Your task to perform on an android device: turn off wifi Image 0: 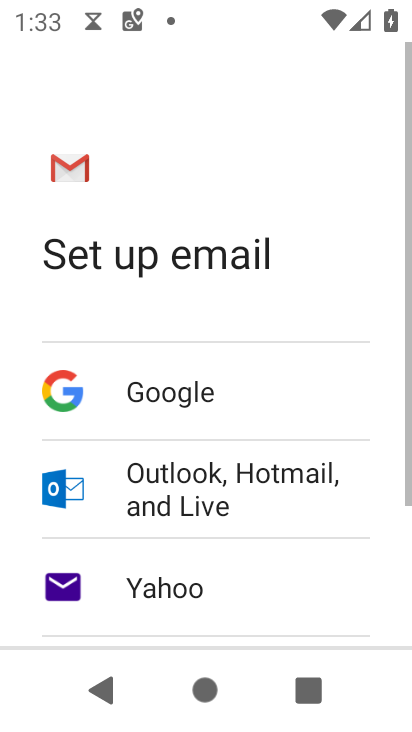
Step 0: press home button
Your task to perform on an android device: turn off wifi Image 1: 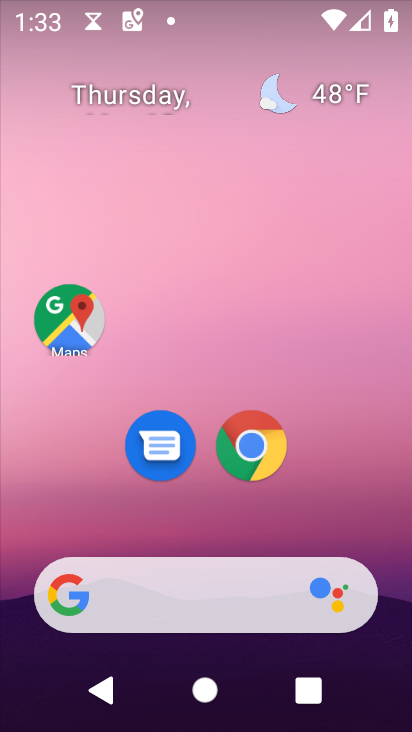
Step 1: drag from (275, 498) to (271, 127)
Your task to perform on an android device: turn off wifi Image 2: 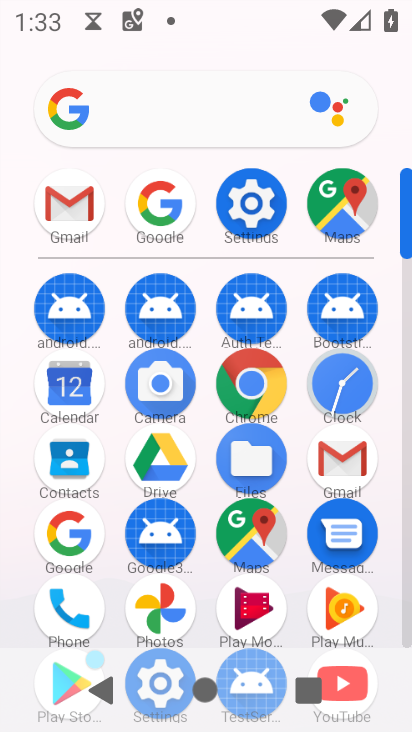
Step 2: click (260, 219)
Your task to perform on an android device: turn off wifi Image 3: 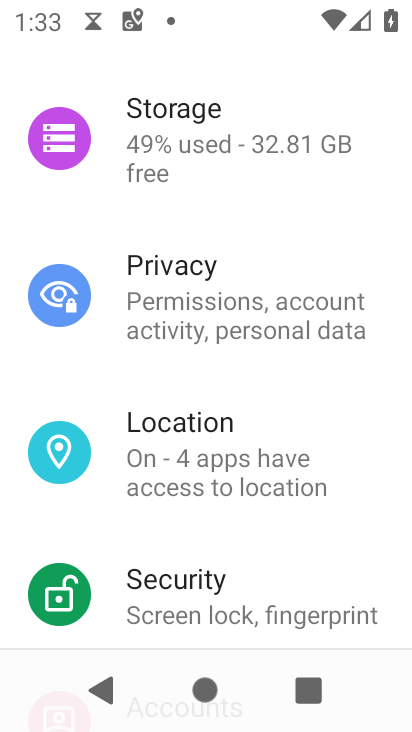
Step 3: drag from (314, 217) to (288, 516)
Your task to perform on an android device: turn off wifi Image 4: 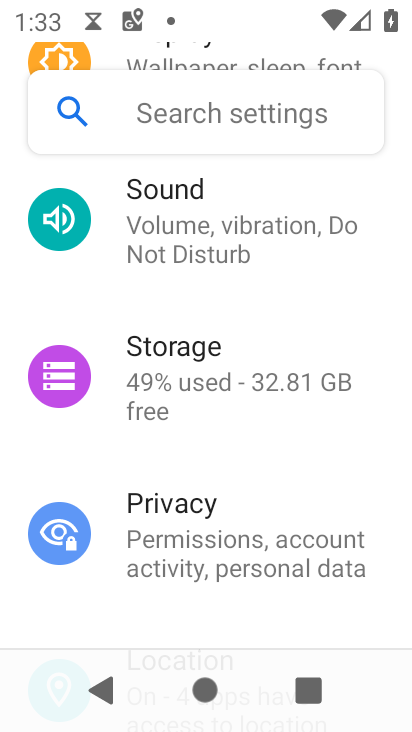
Step 4: drag from (252, 211) to (252, 582)
Your task to perform on an android device: turn off wifi Image 5: 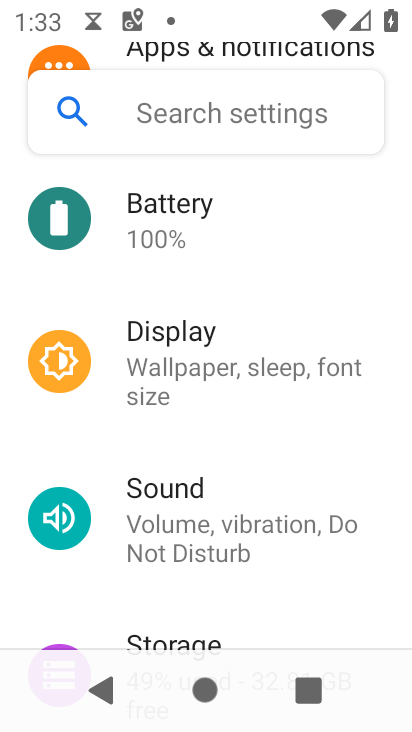
Step 5: drag from (251, 239) to (247, 606)
Your task to perform on an android device: turn off wifi Image 6: 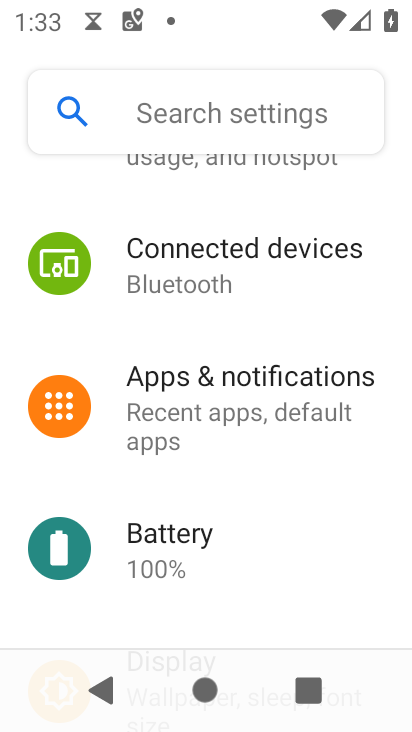
Step 6: drag from (254, 303) to (257, 661)
Your task to perform on an android device: turn off wifi Image 7: 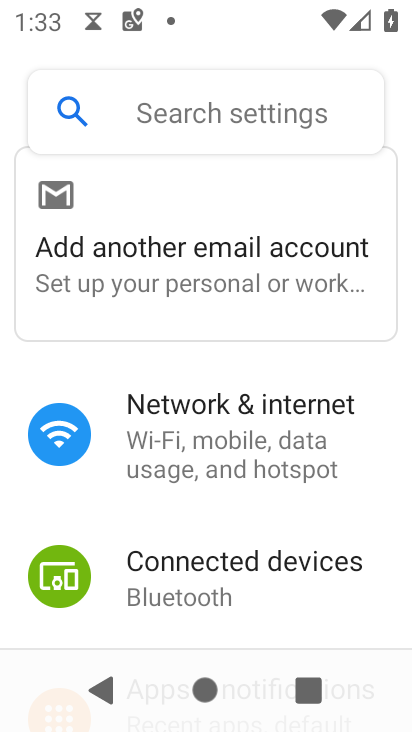
Step 7: click (274, 436)
Your task to perform on an android device: turn off wifi Image 8: 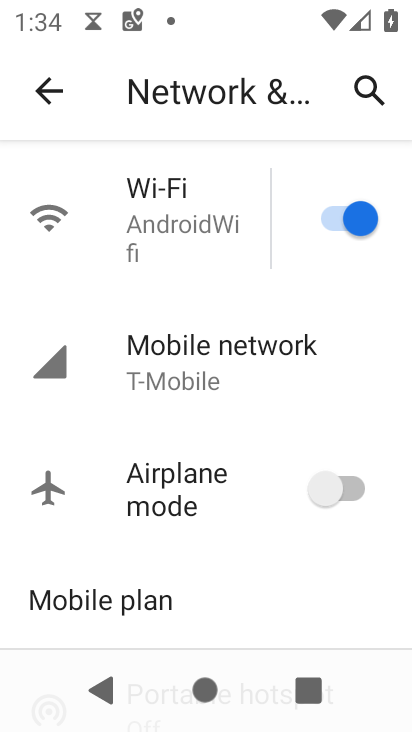
Step 8: click (328, 217)
Your task to perform on an android device: turn off wifi Image 9: 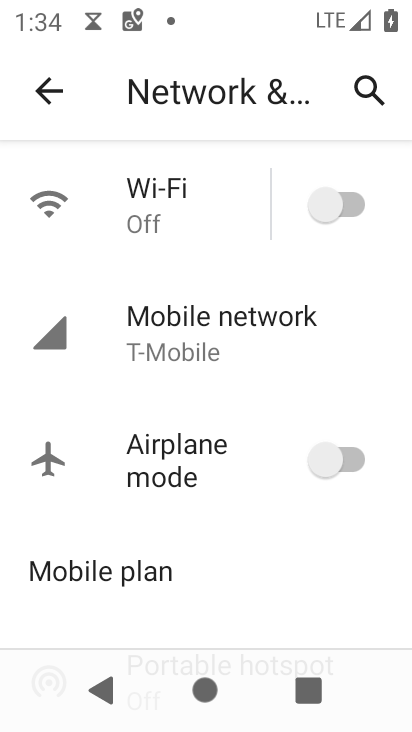
Step 9: task complete